Your task to perform on an android device: check data usage Image 0: 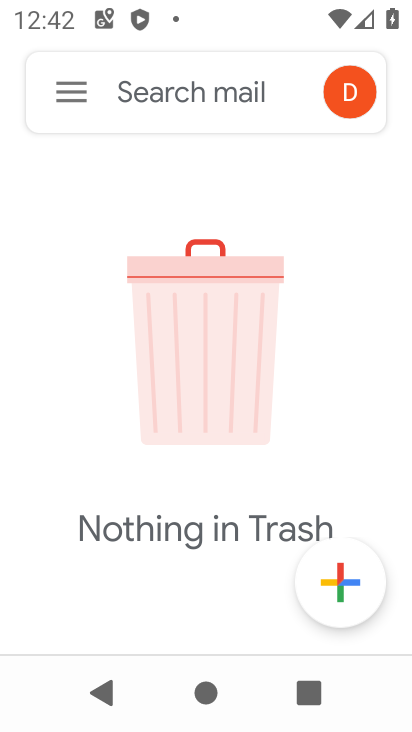
Step 0: press home button
Your task to perform on an android device: check data usage Image 1: 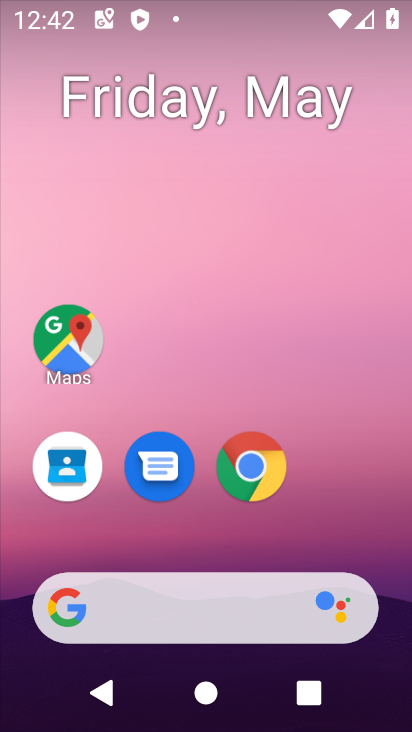
Step 1: drag from (196, 540) to (175, 18)
Your task to perform on an android device: check data usage Image 2: 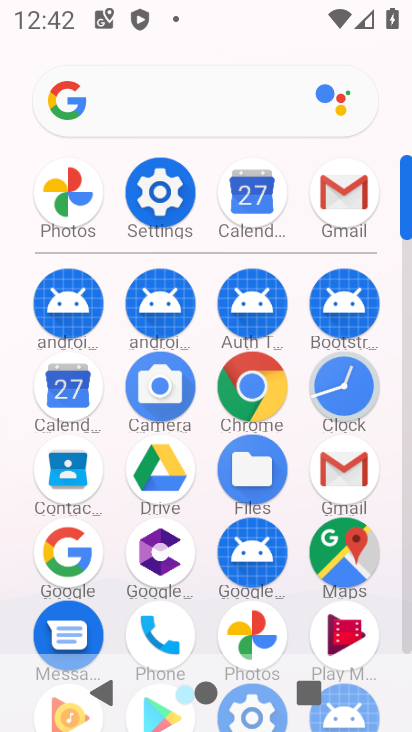
Step 2: click (160, 196)
Your task to perform on an android device: check data usage Image 3: 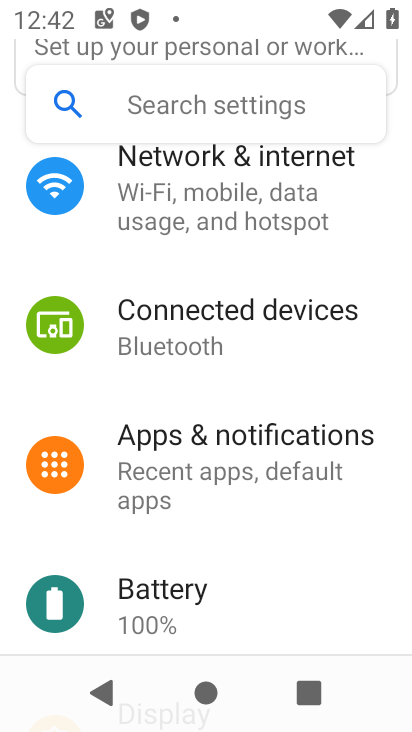
Step 3: click (160, 196)
Your task to perform on an android device: check data usage Image 4: 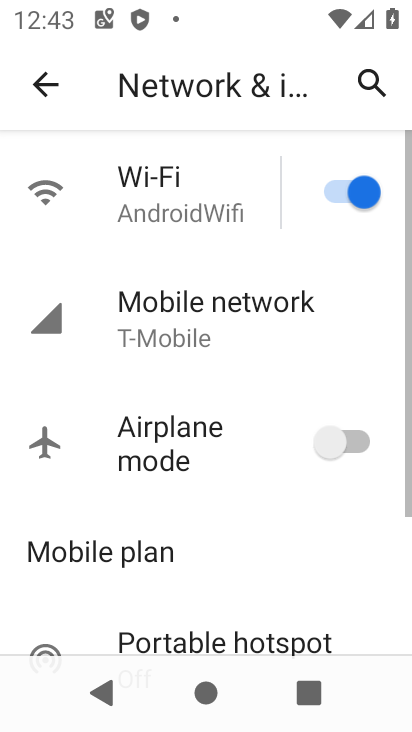
Step 4: click (187, 306)
Your task to perform on an android device: check data usage Image 5: 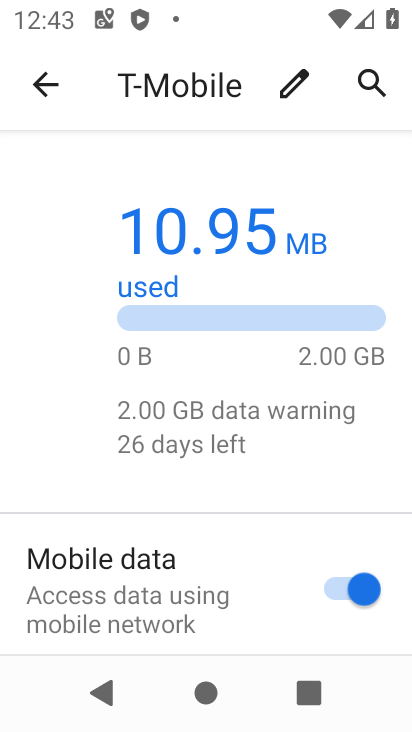
Step 5: task complete